Your task to perform on an android device: Is it going to rain this weekend? Image 0: 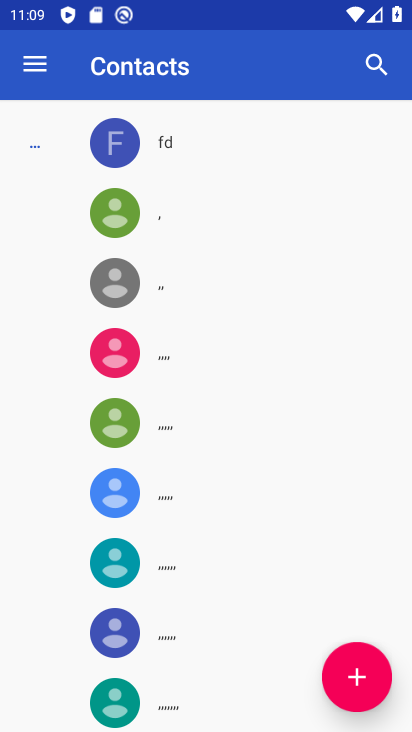
Step 0: press home button
Your task to perform on an android device: Is it going to rain this weekend? Image 1: 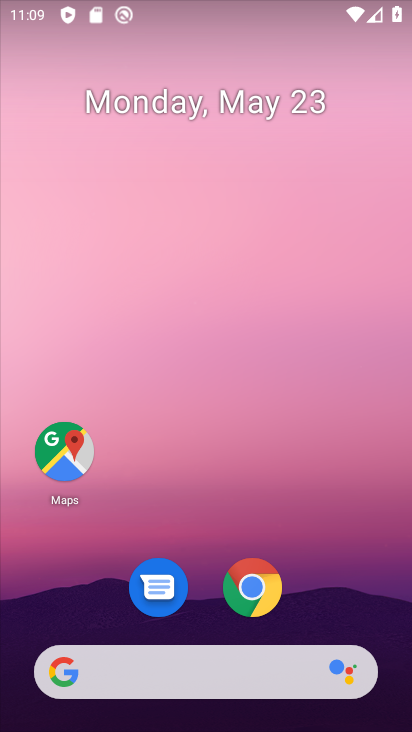
Step 1: click (265, 599)
Your task to perform on an android device: Is it going to rain this weekend? Image 2: 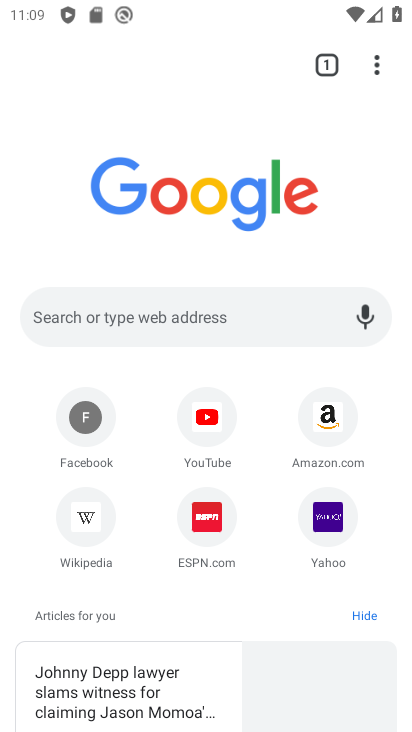
Step 2: click (211, 314)
Your task to perform on an android device: Is it going to rain this weekend? Image 3: 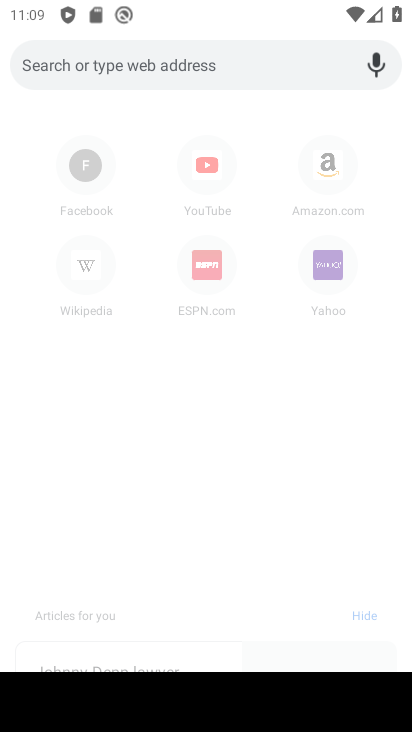
Step 3: type "Is it going to rain this weekend?"
Your task to perform on an android device: Is it going to rain this weekend? Image 4: 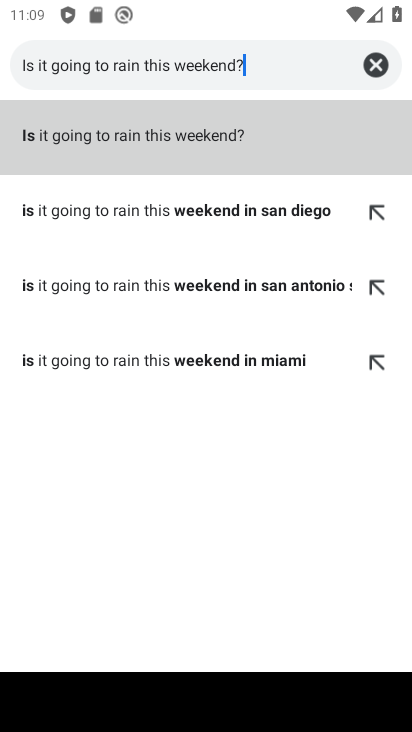
Step 4: click (200, 137)
Your task to perform on an android device: Is it going to rain this weekend? Image 5: 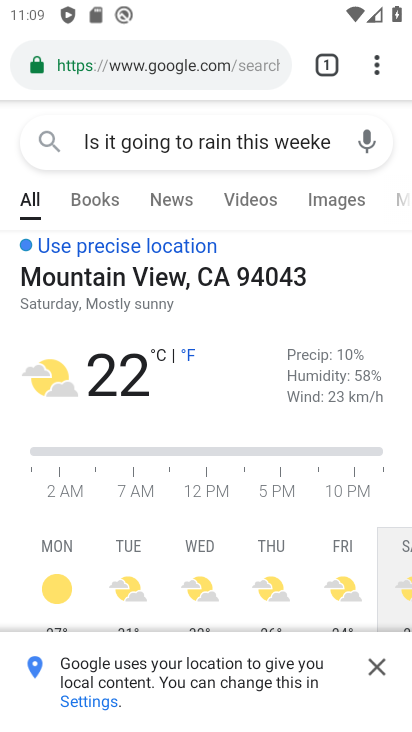
Step 5: click (382, 663)
Your task to perform on an android device: Is it going to rain this weekend? Image 6: 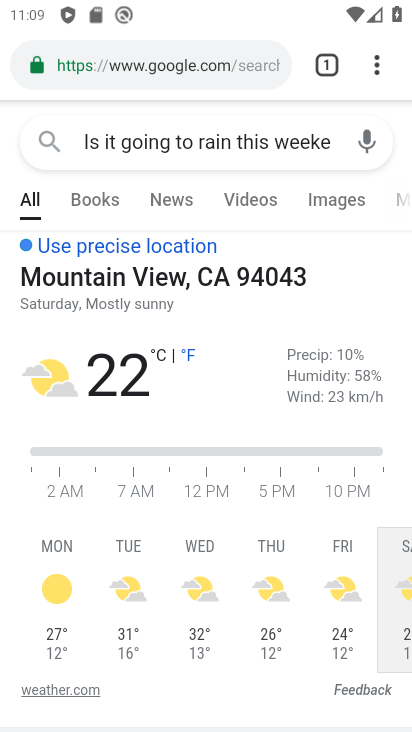
Step 6: task complete